Your task to perform on an android device: turn on translation in the chrome app Image 0: 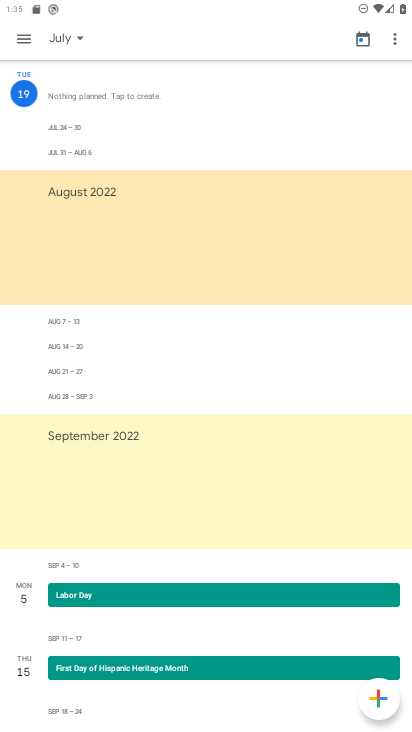
Step 0: press home button
Your task to perform on an android device: turn on translation in the chrome app Image 1: 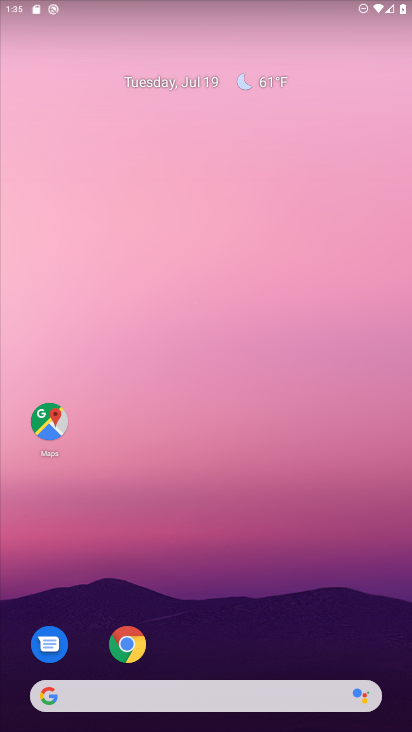
Step 1: click (128, 633)
Your task to perform on an android device: turn on translation in the chrome app Image 2: 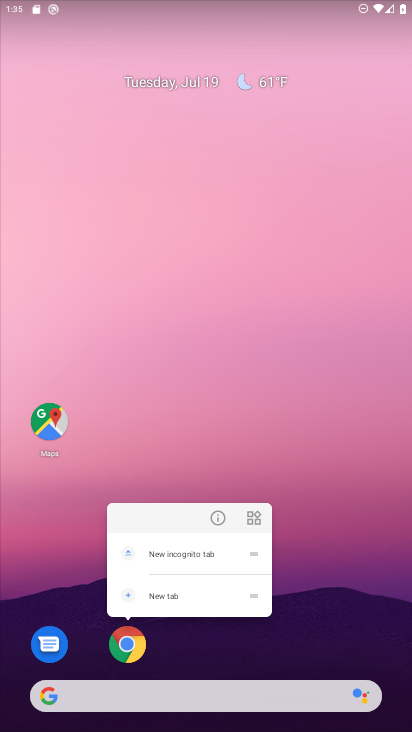
Step 2: click (124, 638)
Your task to perform on an android device: turn on translation in the chrome app Image 3: 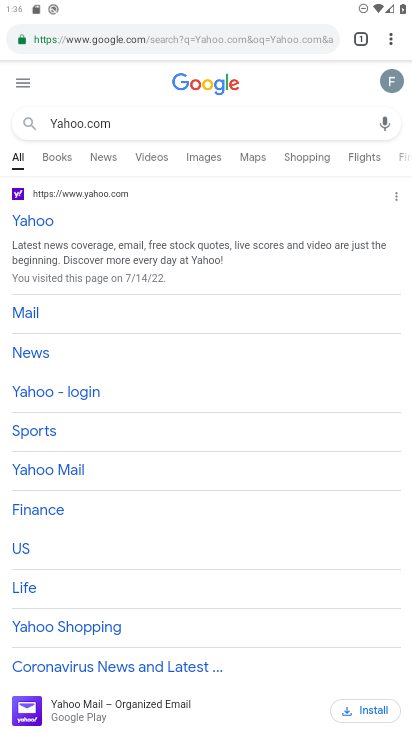
Step 3: click (390, 42)
Your task to perform on an android device: turn on translation in the chrome app Image 4: 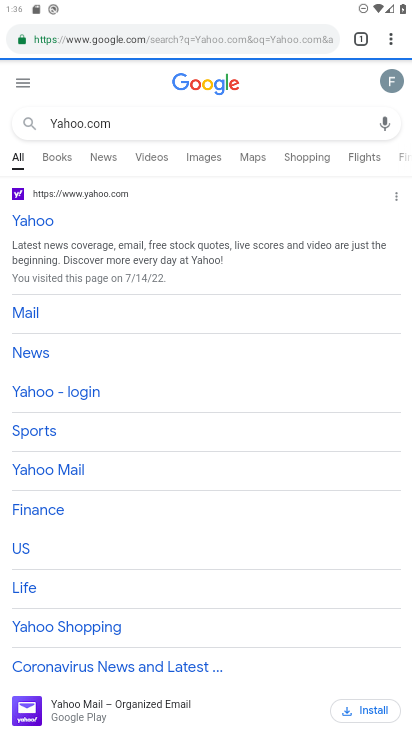
Step 4: click (390, 41)
Your task to perform on an android device: turn on translation in the chrome app Image 5: 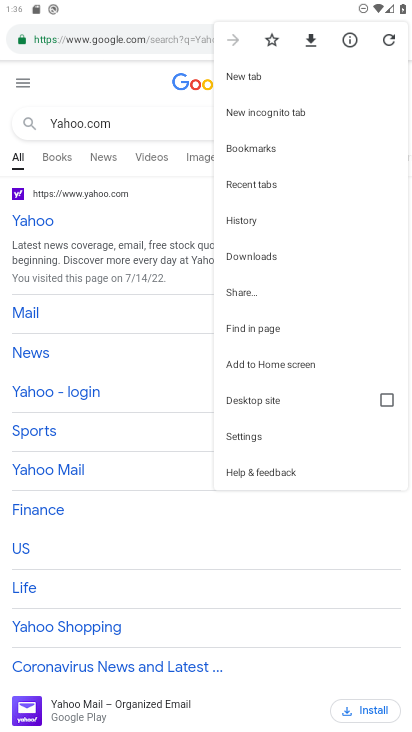
Step 5: click (241, 433)
Your task to perform on an android device: turn on translation in the chrome app Image 6: 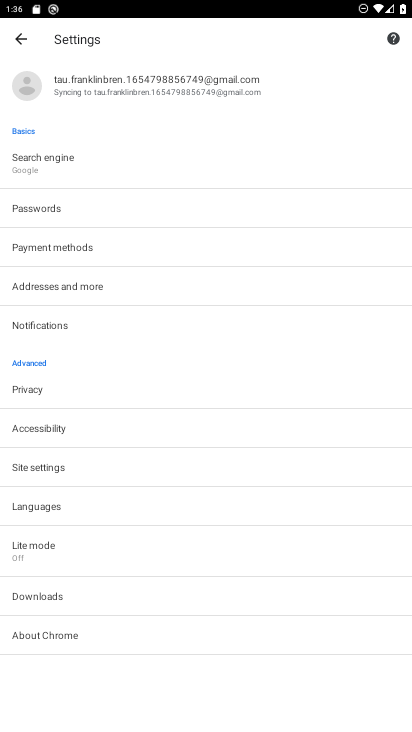
Step 6: click (70, 509)
Your task to perform on an android device: turn on translation in the chrome app Image 7: 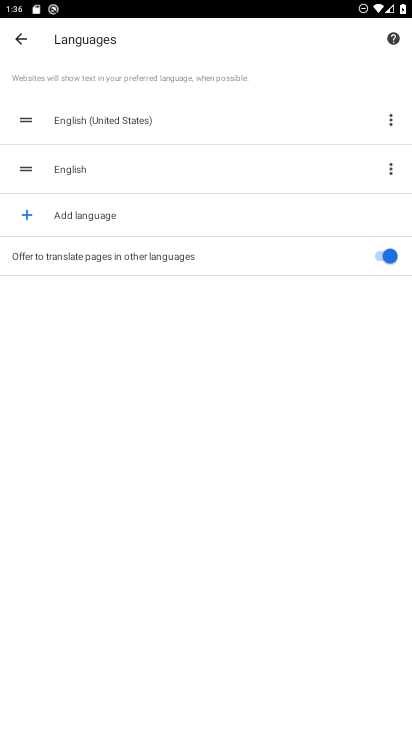
Step 7: task complete